Your task to perform on an android device: Search for seafood restaurants on Google Maps Image 0: 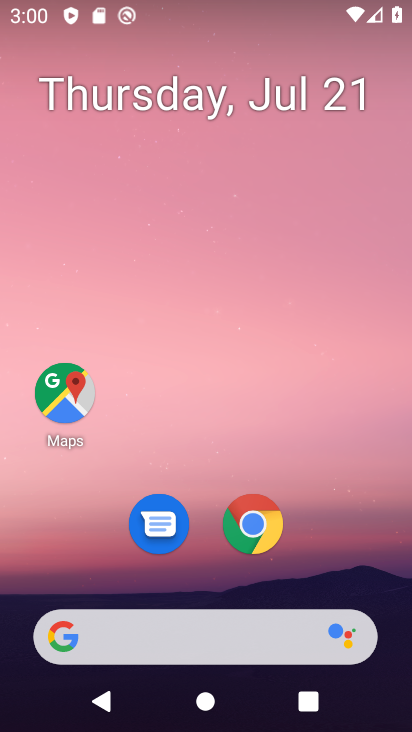
Step 0: press home button
Your task to perform on an android device: Search for seafood restaurants on Google Maps Image 1: 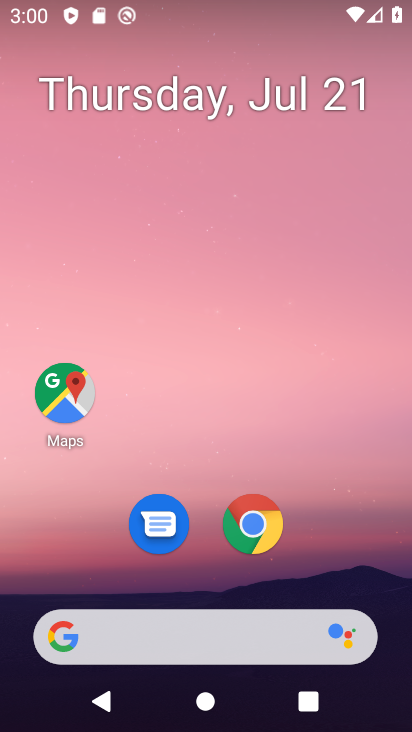
Step 1: press home button
Your task to perform on an android device: Search for seafood restaurants on Google Maps Image 2: 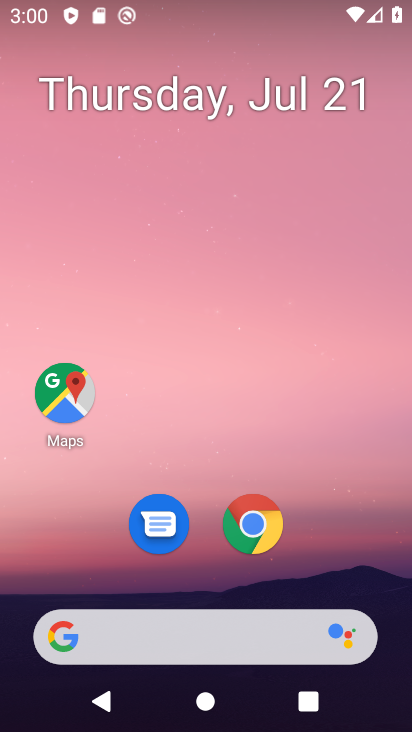
Step 2: drag from (198, 636) to (319, 146)
Your task to perform on an android device: Search for seafood restaurants on Google Maps Image 3: 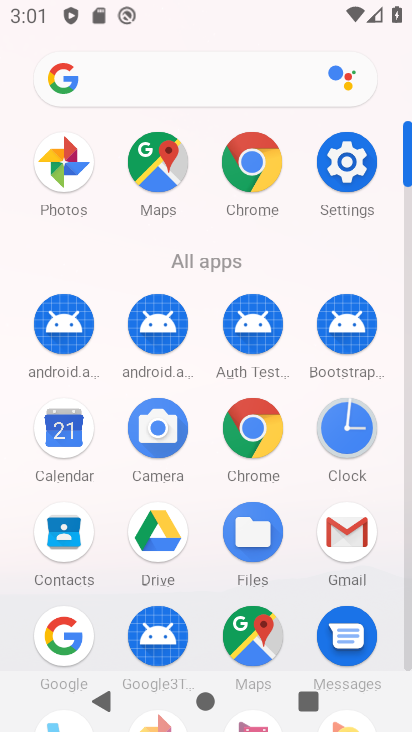
Step 3: click (157, 178)
Your task to perform on an android device: Search for seafood restaurants on Google Maps Image 4: 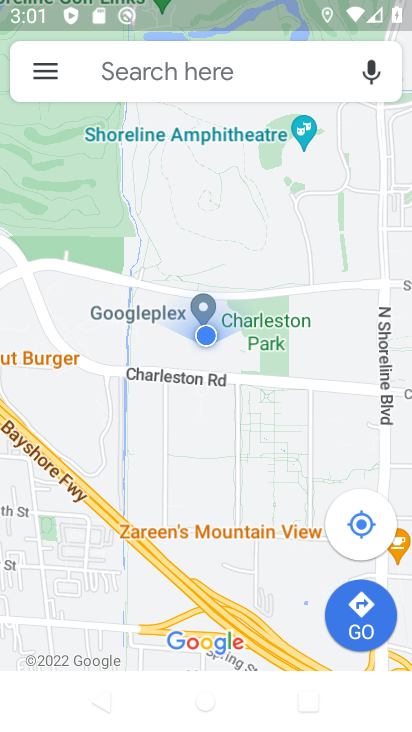
Step 4: click (194, 68)
Your task to perform on an android device: Search for seafood restaurants on Google Maps Image 5: 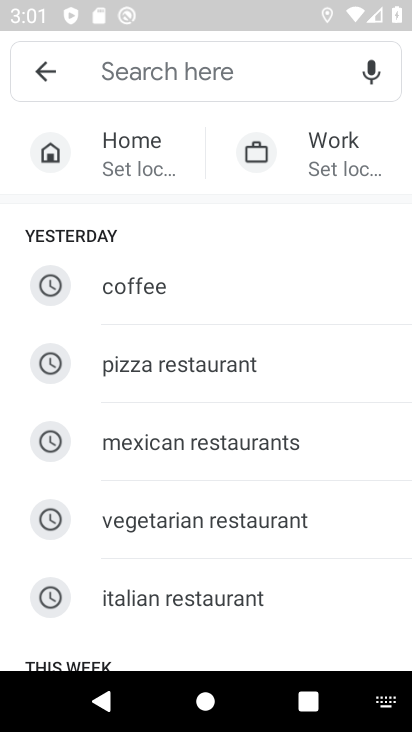
Step 5: drag from (300, 580) to (404, 144)
Your task to perform on an android device: Search for seafood restaurants on Google Maps Image 6: 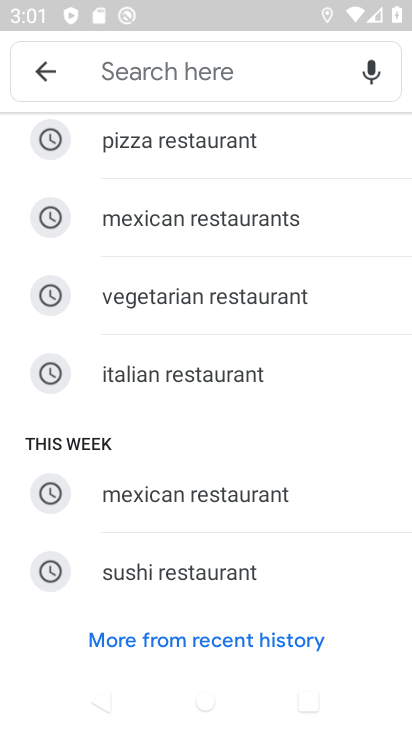
Step 6: drag from (340, 176) to (242, 648)
Your task to perform on an android device: Search for seafood restaurants on Google Maps Image 7: 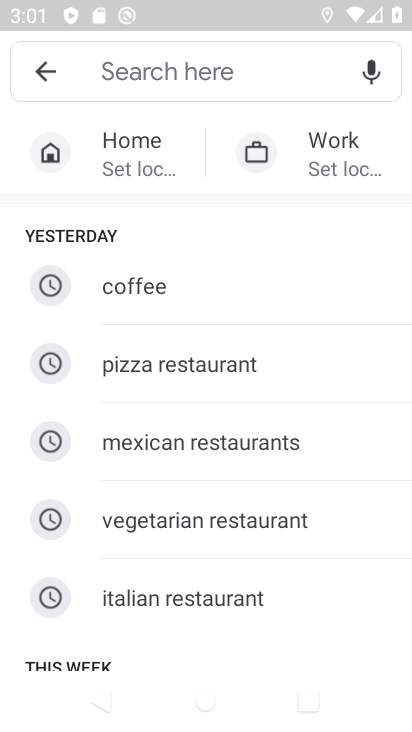
Step 7: click (143, 68)
Your task to perform on an android device: Search for seafood restaurants on Google Maps Image 8: 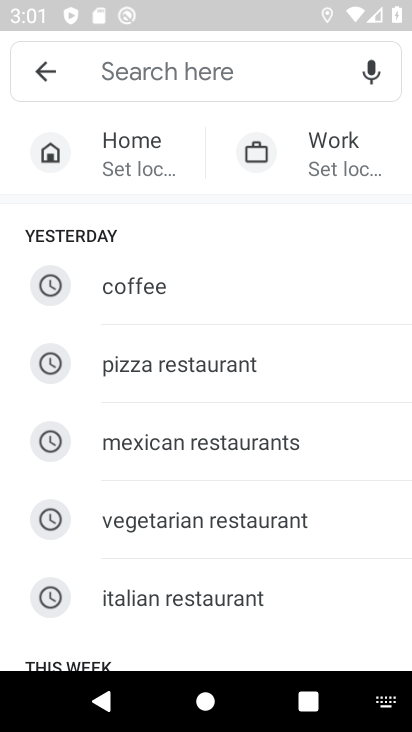
Step 8: type "seafood restaurants"
Your task to perform on an android device: Search for seafood restaurants on Google Maps Image 9: 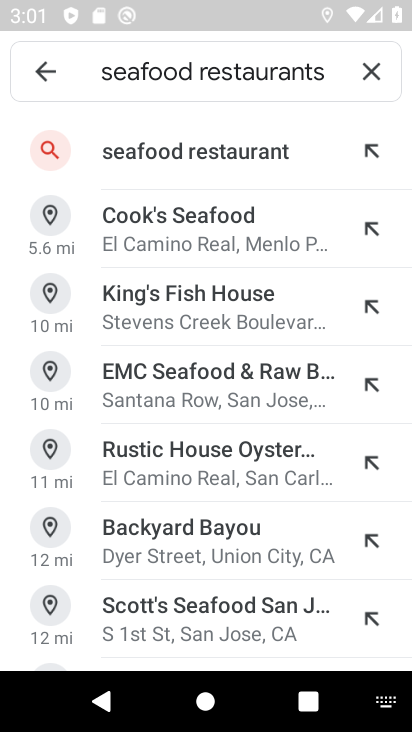
Step 9: click (243, 160)
Your task to perform on an android device: Search for seafood restaurants on Google Maps Image 10: 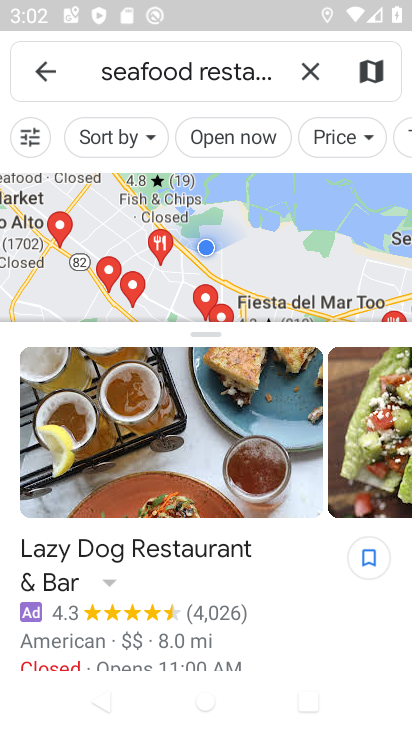
Step 10: task complete